Your task to perform on an android device: Open sound settings Image 0: 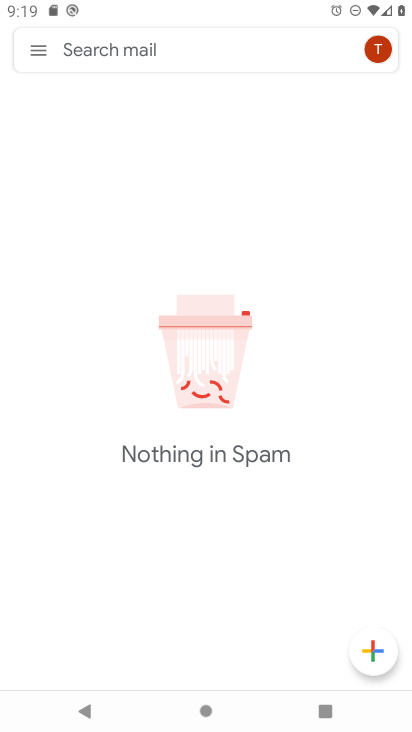
Step 0: press home button
Your task to perform on an android device: Open sound settings Image 1: 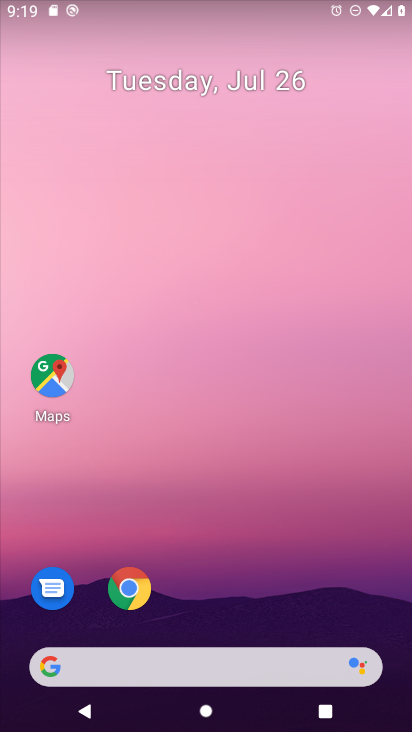
Step 1: drag from (246, 595) to (279, 43)
Your task to perform on an android device: Open sound settings Image 2: 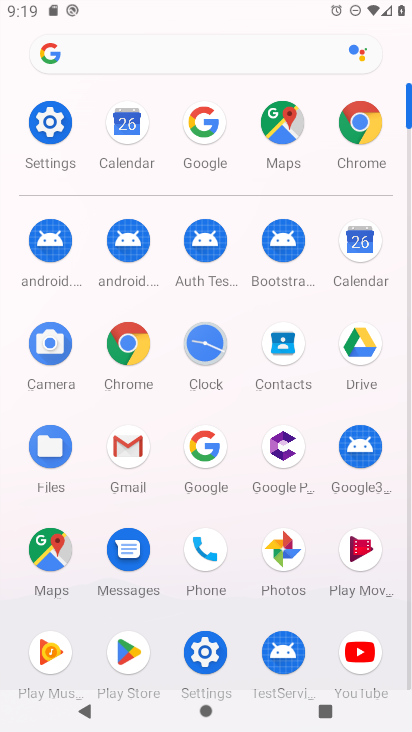
Step 2: click (212, 657)
Your task to perform on an android device: Open sound settings Image 3: 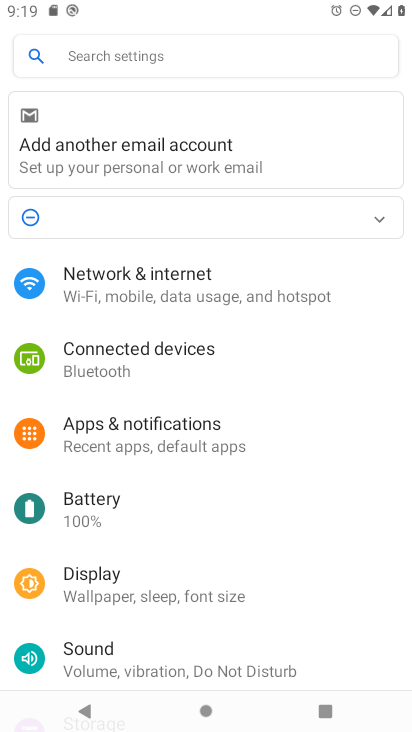
Step 3: drag from (181, 592) to (206, 469)
Your task to perform on an android device: Open sound settings Image 4: 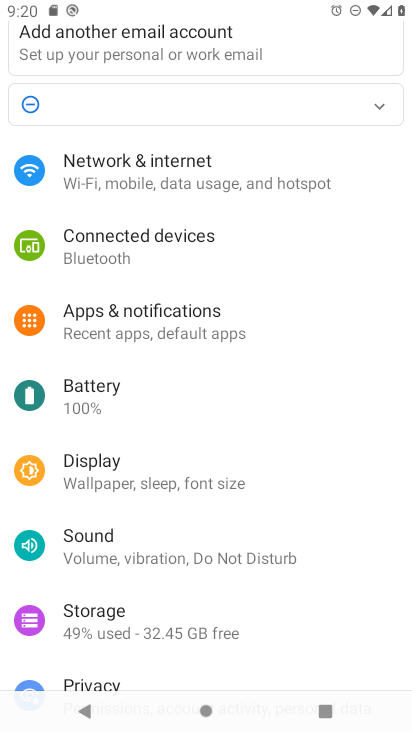
Step 4: click (225, 545)
Your task to perform on an android device: Open sound settings Image 5: 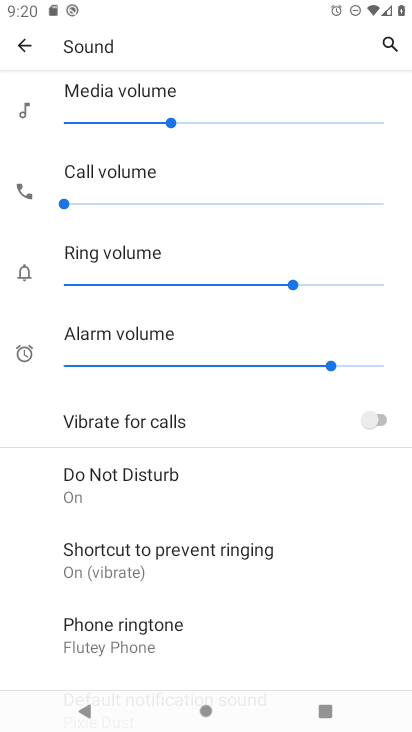
Step 5: task complete